Your task to perform on an android device: open chrome and create a bookmark for the current page Image 0: 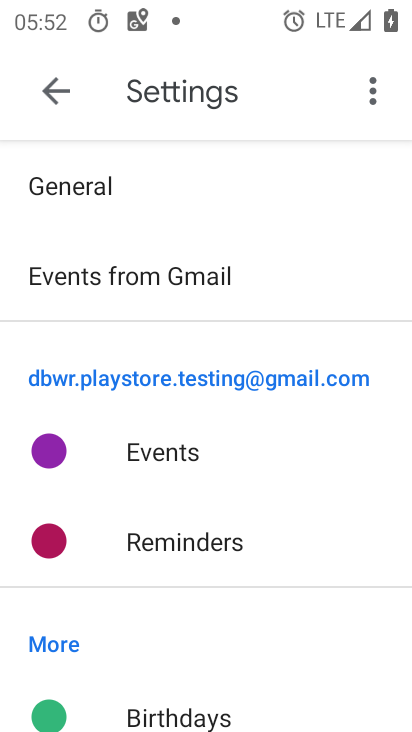
Step 0: press home button
Your task to perform on an android device: open chrome and create a bookmark for the current page Image 1: 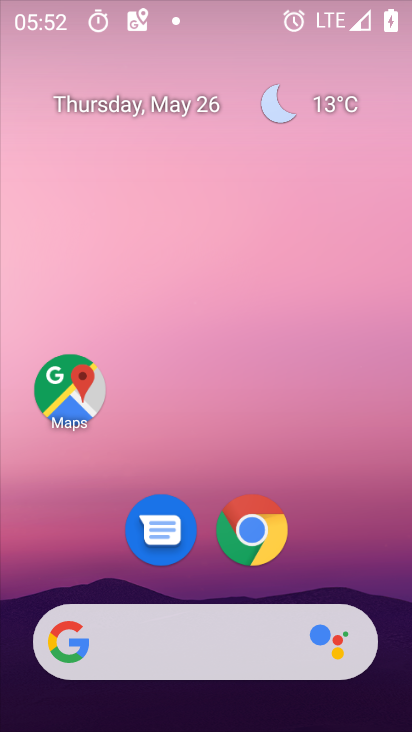
Step 1: drag from (264, 575) to (306, 27)
Your task to perform on an android device: open chrome and create a bookmark for the current page Image 2: 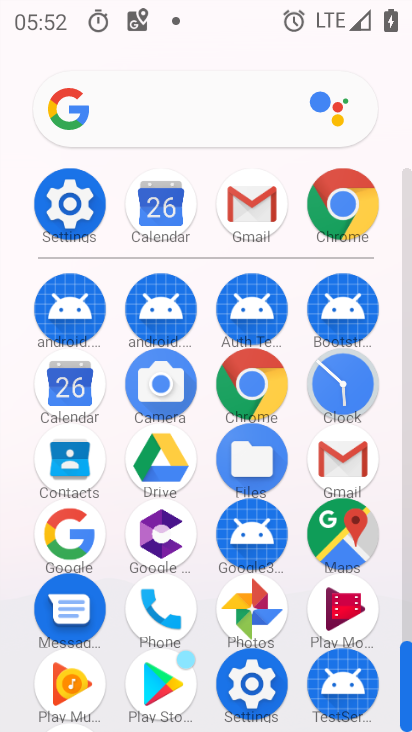
Step 2: click (255, 392)
Your task to perform on an android device: open chrome and create a bookmark for the current page Image 3: 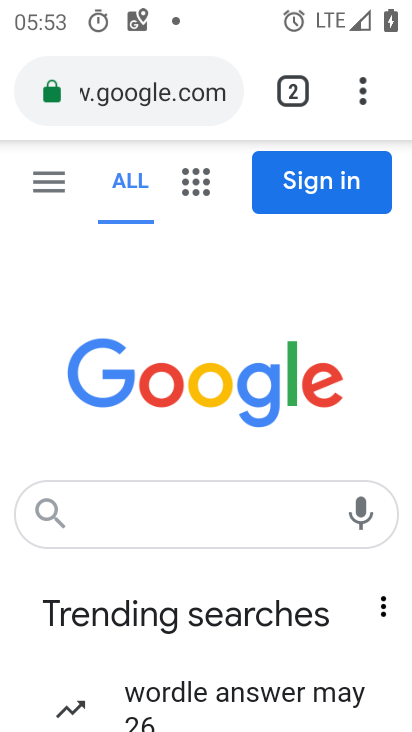
Step 3: task complete